Your task to perform on an android device: Open notification settings Image 0: 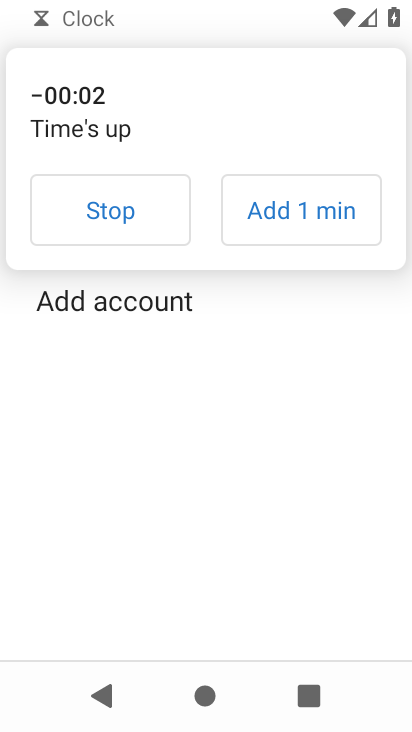
Step 0: click (115, 221)
Your task to perform on an android device: Open notification settings Image 1: 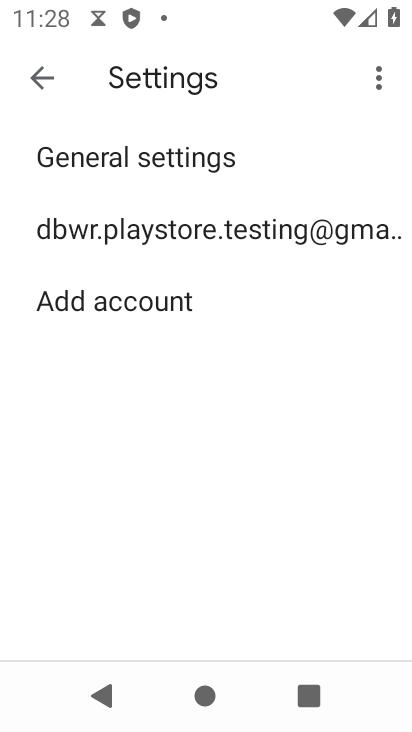
Step 1: press home button
Your task to perform on an android device: Open notification settings Image 2: 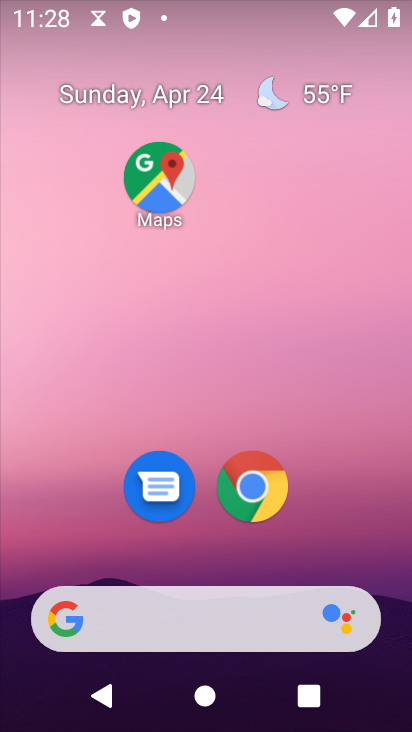
Step 2: drag from (261, 532) to (296, 167)
Your task to perform on an android device: Open notification settings Image 3: 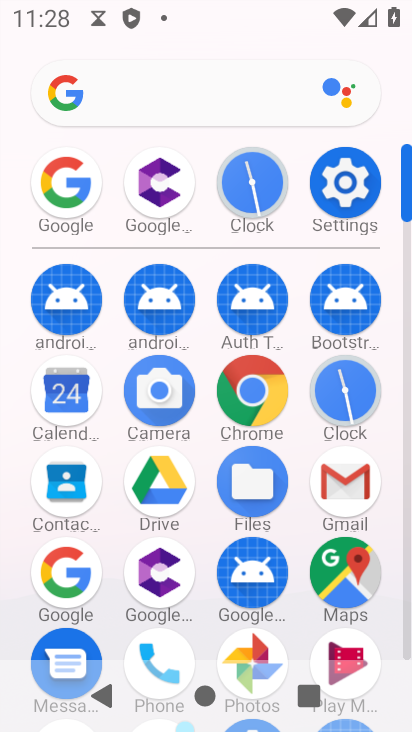
Step 3: click (364, 187)
Your task to perform on an android device: Open notification settings Image 4: 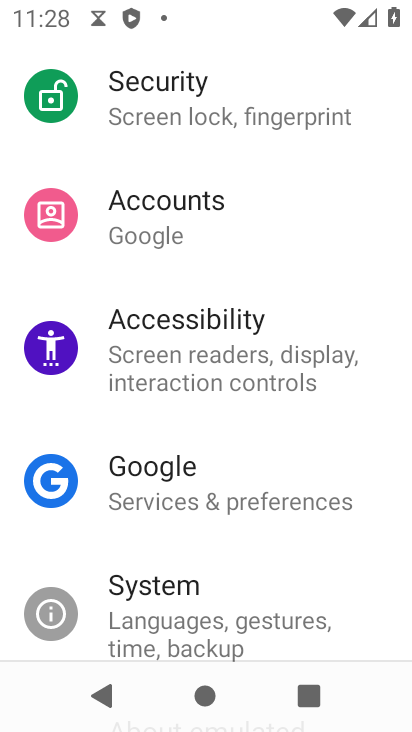
Step 4: drag from (280, 373) to (260, 603)
Your task to perform on an android device: Open notification settings Image 5: 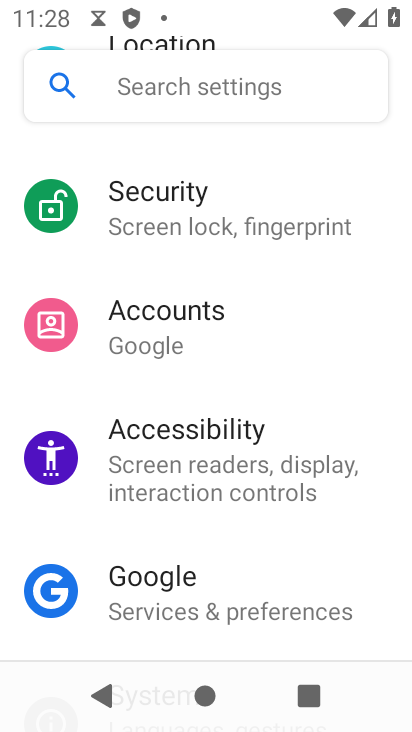
Step 5: drag from (275, 354) to (282, 606)
Your task to perform on an android device: Open notification settings Image 6: 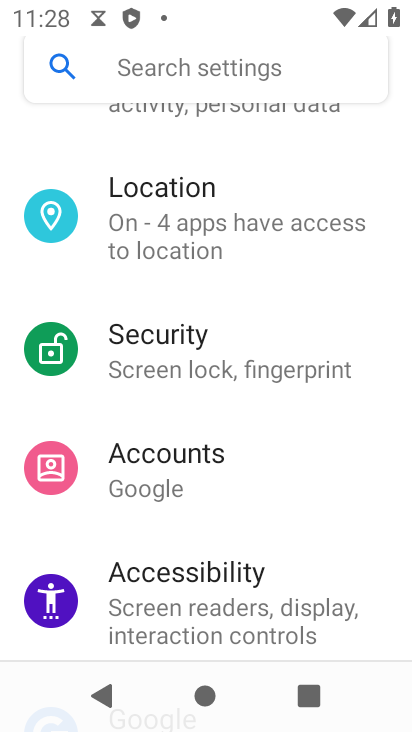
Step 6: drag from (281, 184) to (286, 584)
Your task to perform on an android device: Open notification settings Image 7: 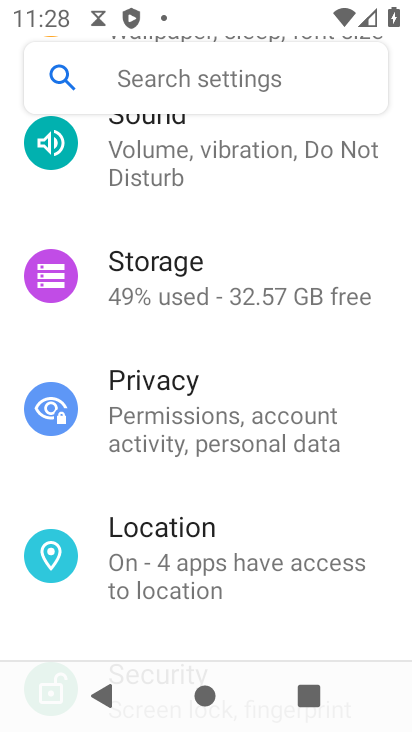
Step 7: drag from (271, 236) to (277, 563)
Your task to perform on an android device: Open notification settings Image 8: 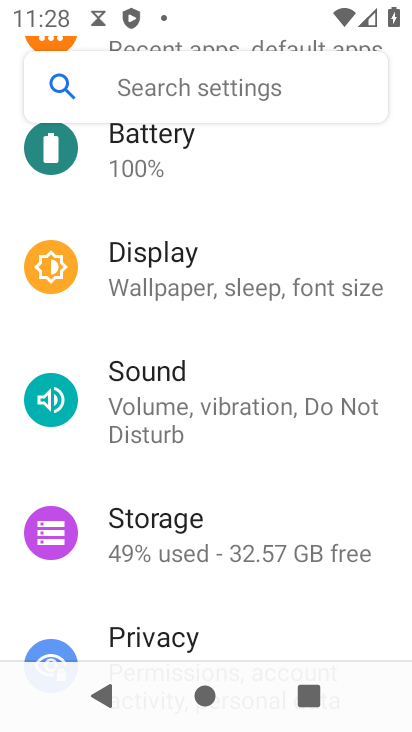
Step 8: drag from (262, 211) to (271, 566)
Your task to perform on an android device: Open notification settings Image 9: 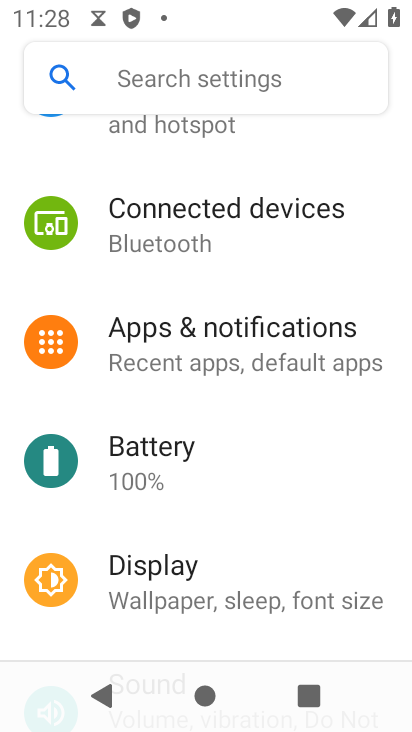
Step 9: click (247, 383)
Your task to perform on an android device: Open notification settings Image 10: 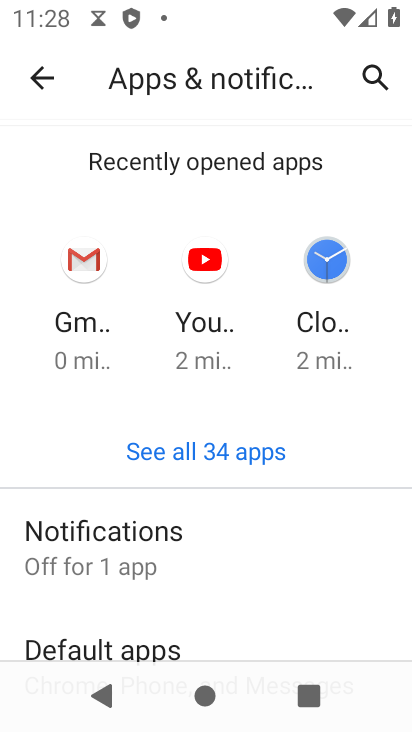
Step 10: task complete